Your task to perform on an android device: open a new tab in the chrome app Image 0: 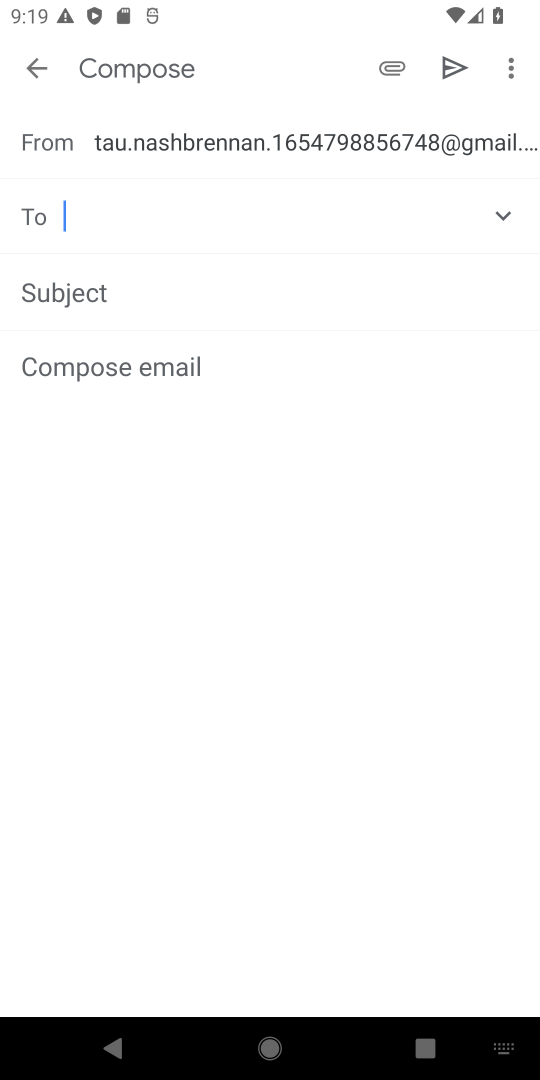
Step 0: press home button
Your task to perform on an android device: open a new tab in the chrome app Image 1: 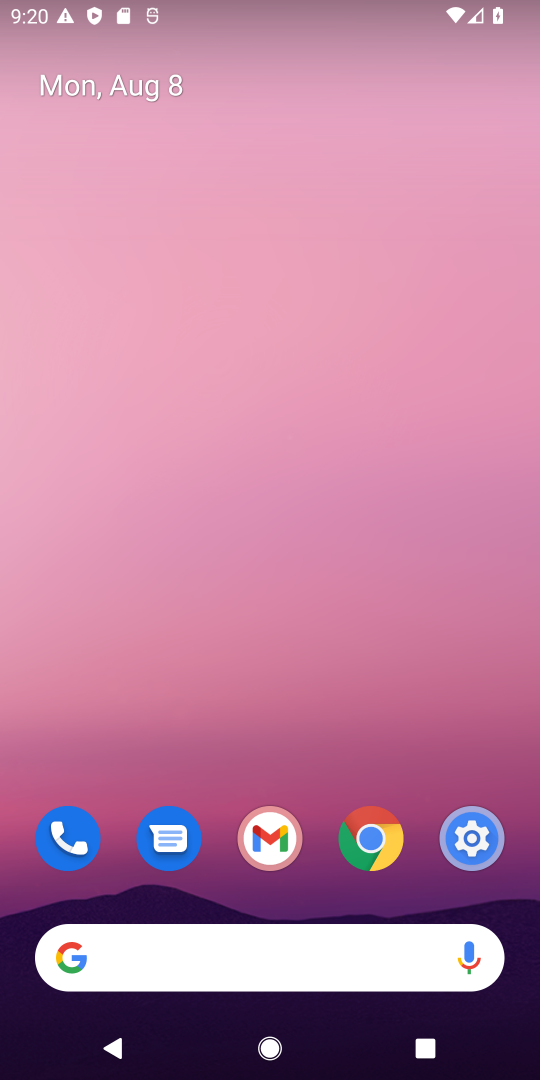
Step 1: click (374, 846)
Your task to perform on an android device: open a new tab in the chrome app Image 2: 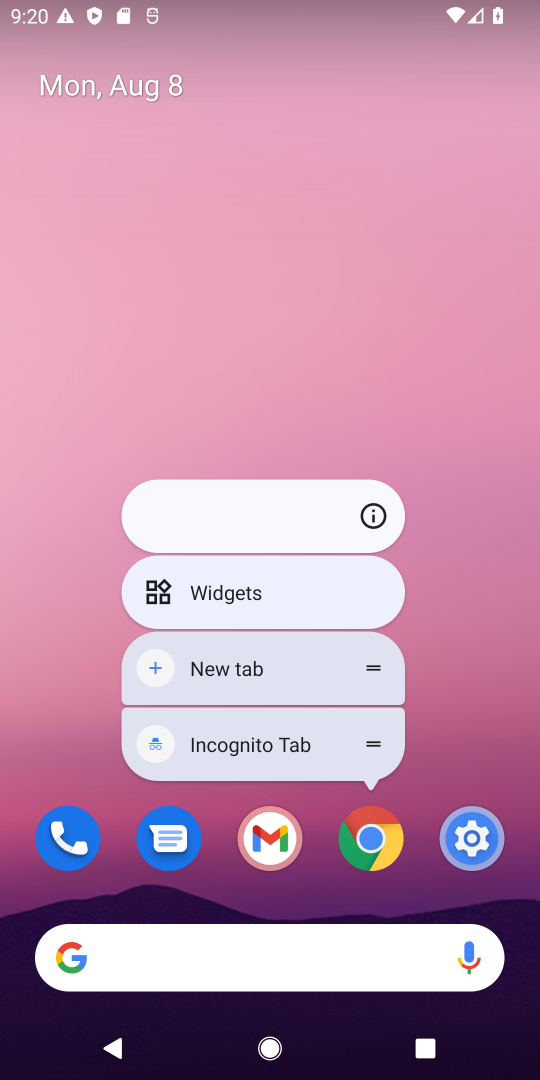
Step 2: click (358, 848)
Your task to perform on an android device: open a new tab in the chrome app Image 3: 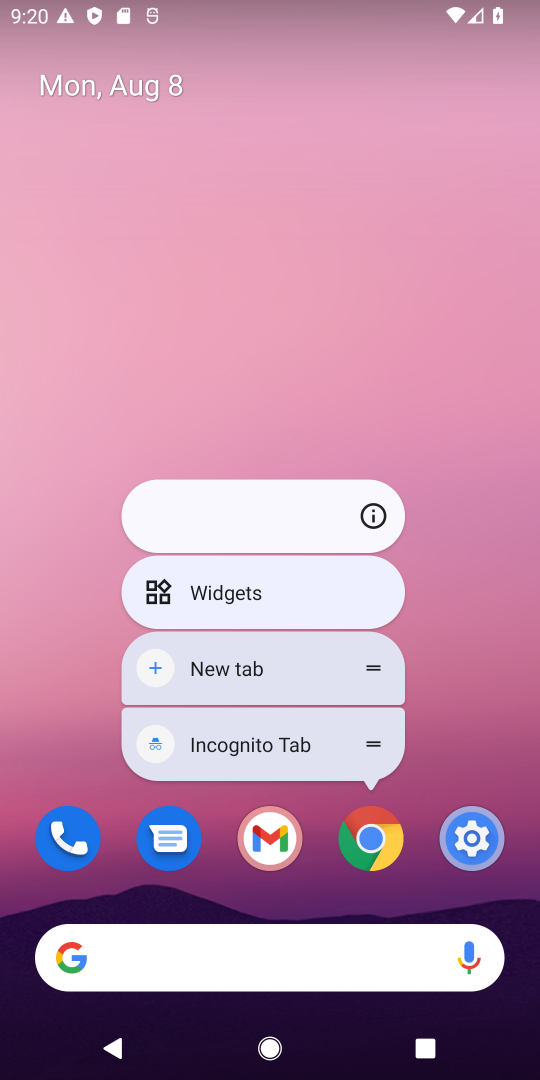
Step 3: drag from (524, 451) to (539, 146)
Your task to perform on an android device: open a new tab in the chrome app Image 4: 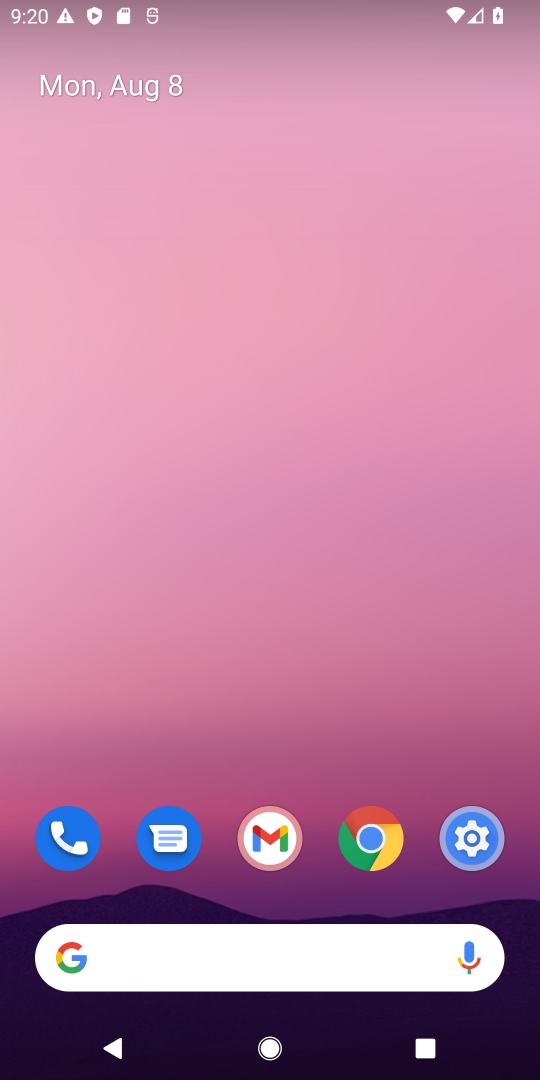
Step 4: drag from (344, 805) to (369, 135)
Your task to perform on an android device: open a new tab in the chrome app Image 5: 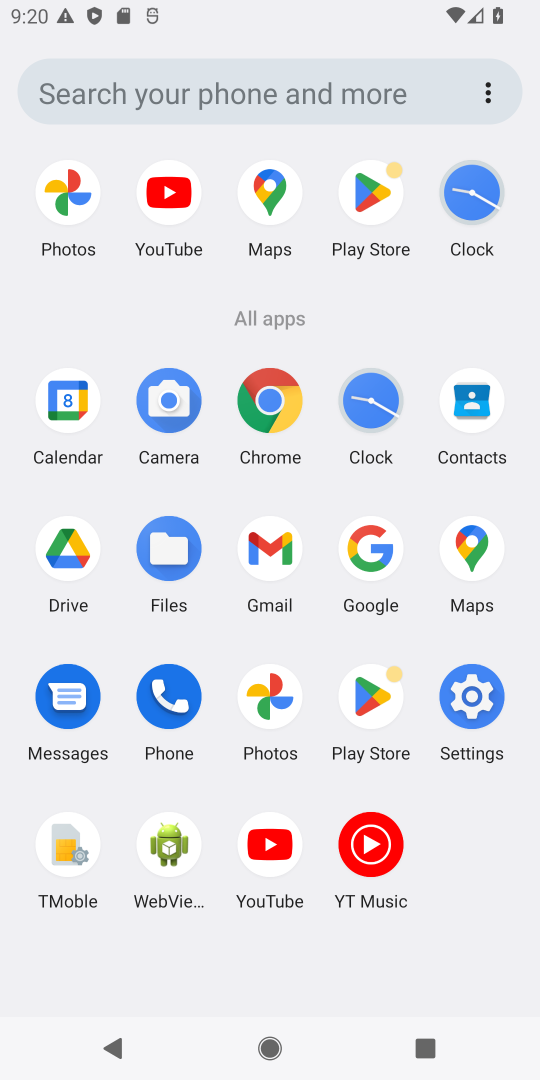
Step 5: click (248, 409)
Your task to perform on an android device: open a new tab in the chrome app Image 6: 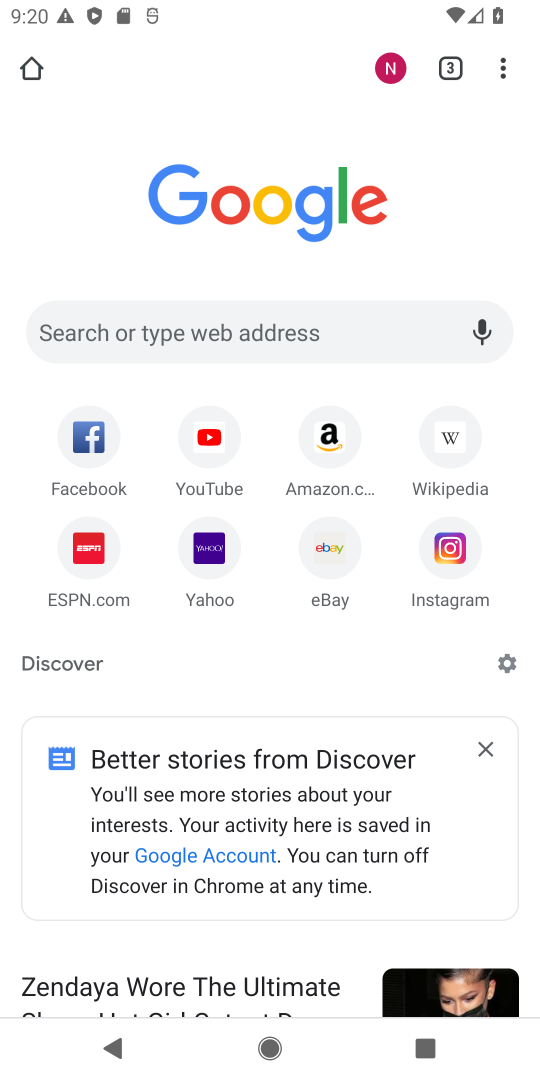
Step 6: click (449, 74)
Your task to perform on an android device: open a new tab in the chrome app Image 7: 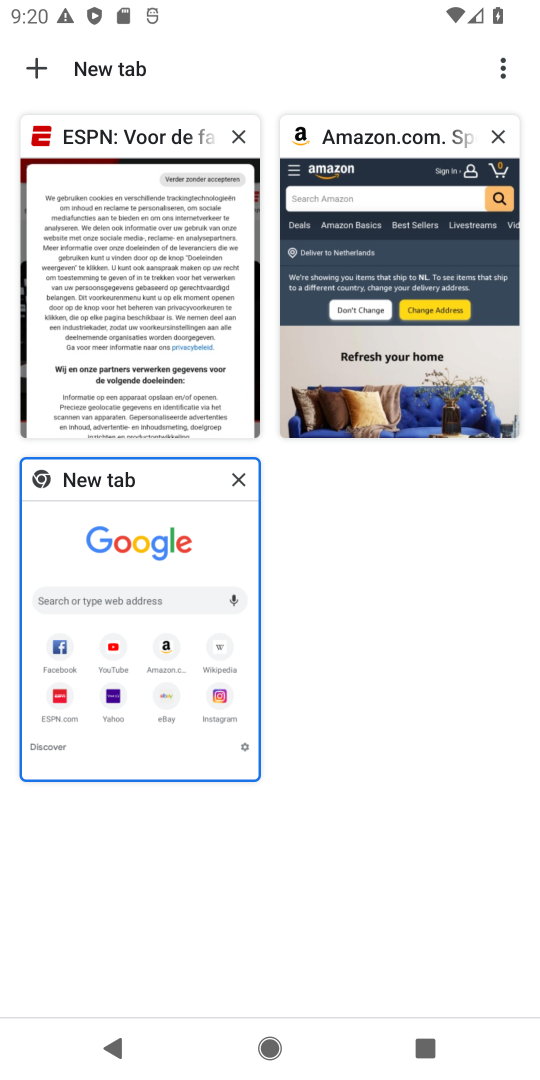
Step 7: click (36, 67)
Your task to perform on an android device: open a new tab in the chrome app Image 8: 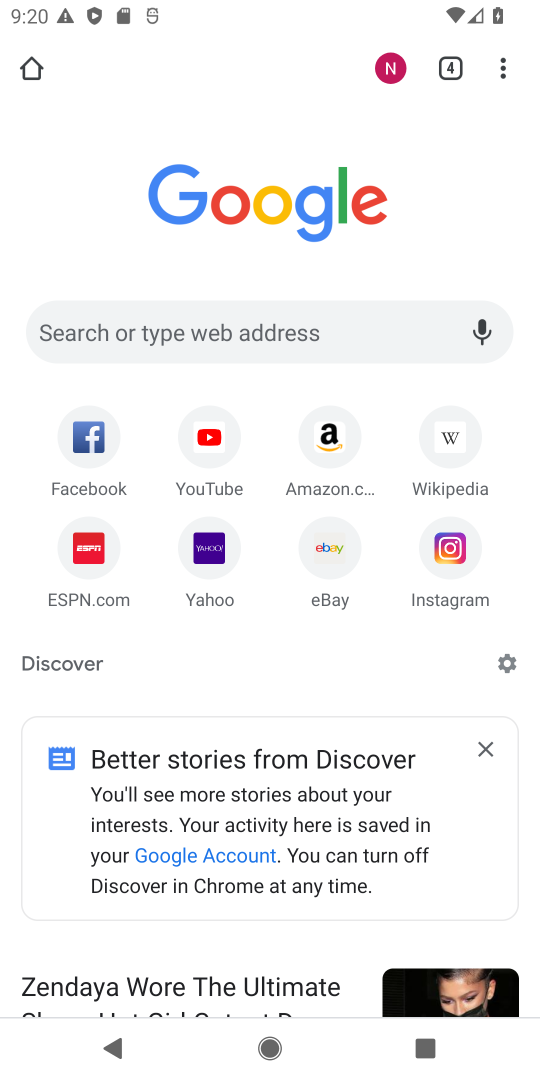
Step 8: task complete